Your task to perform on an android device: What is the news today? Image 0: 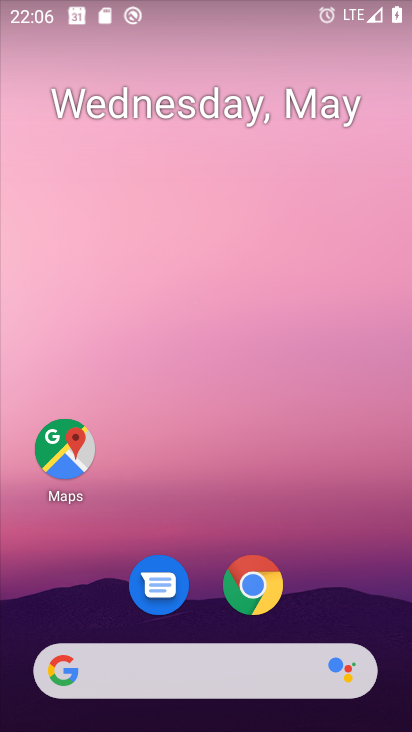
Step 0: click (221, 669)
Your task to perform on an android device: What is the news today? Image 1: 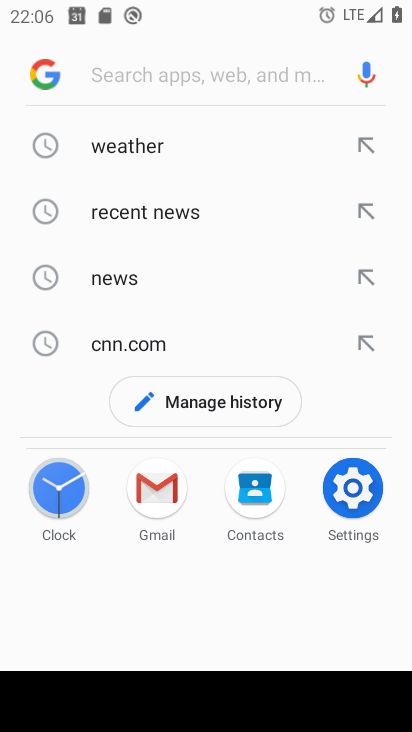
Step 1: click (56, 271)
Your task to perform on an android device: What is the news today? Image 2: 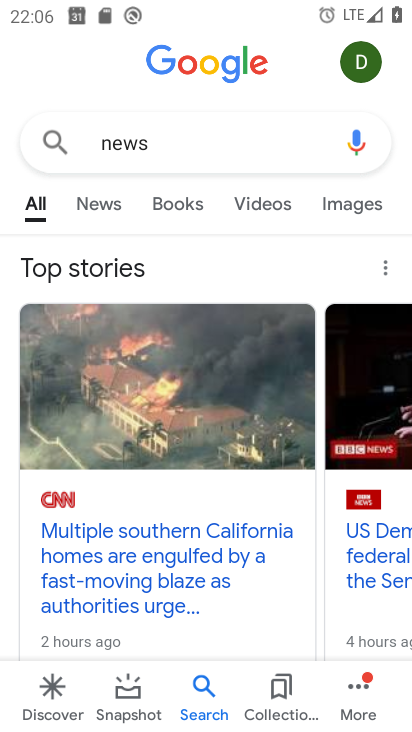
Step 2: click (107, 206)
Your task to perform on an android device: What is the news today? Image 3: 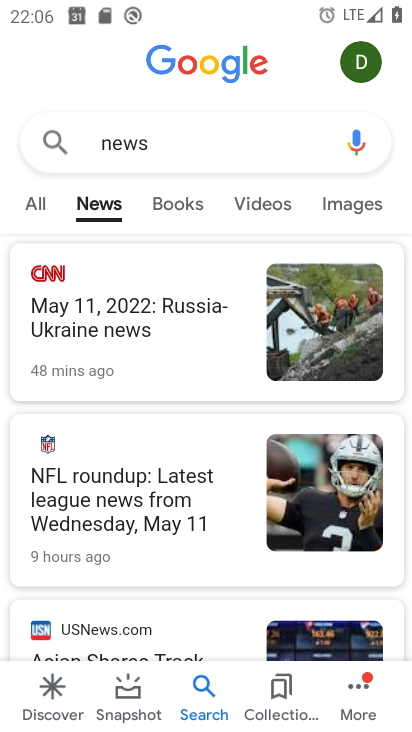
Step 3: task complete